Your task to perform on an android device: toggle translation in the chrome app Image 0: 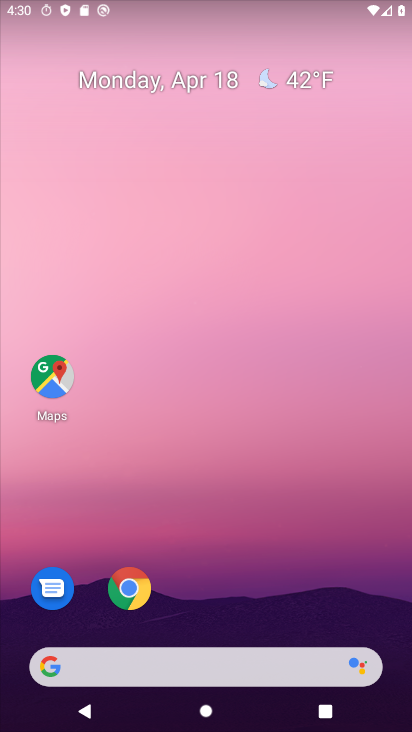
Step 0: click (131, 590)
Your task to perform on an android device: toggle translation in the chrome app Image 1: 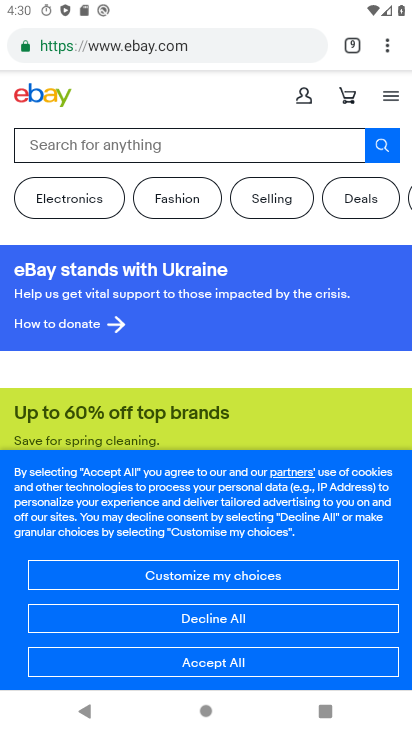
Step 1: click (391, 50)
Your task to perform on an android device: toggle translation in the chrome app Image 2: 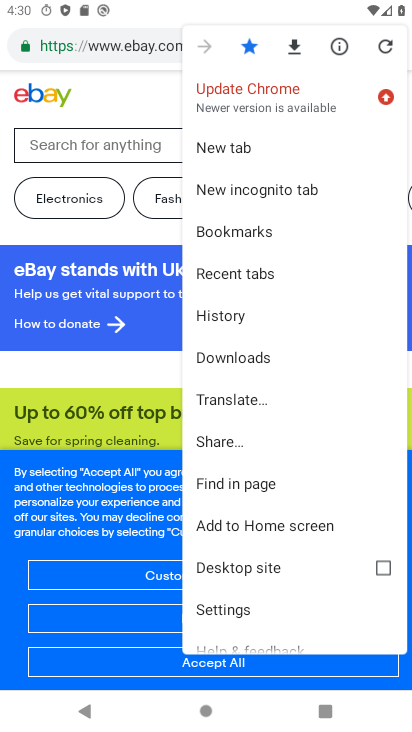
Step 2: click (221, 614)
Your task to perform on an android device: toggle translation in the chrome app Image 3: 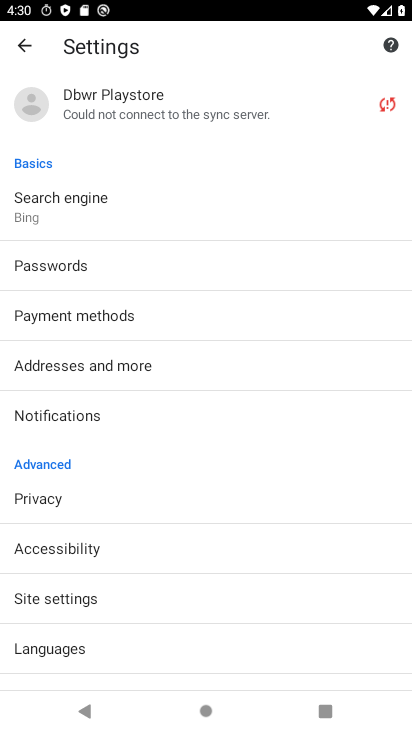
Step 3: drag from (221, 614) to (234, 231)
Your task to perform on an android device: toggle translation in the chrome app Image 4: 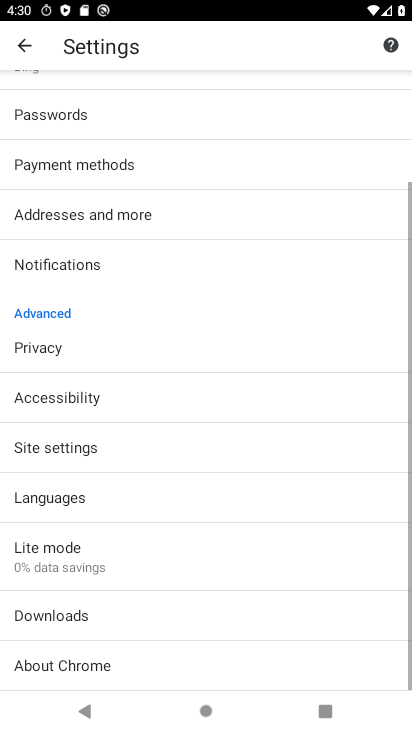
Step 4: click (69, 508)
Your task to perform on an android device: toggle translation in the chrome app Image 5: 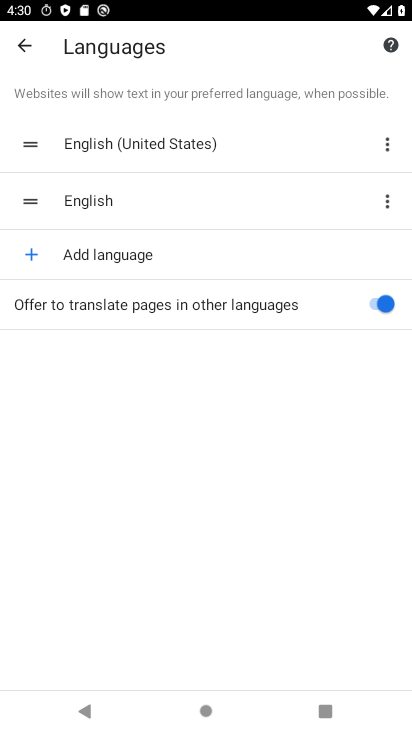
Step 5: click (377, 311)
Your task to perform on an android device: toggle translation in the chrome app Image 6: 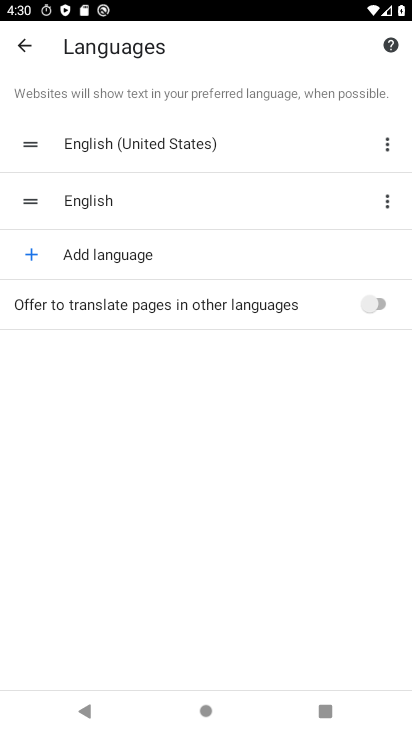
Step 6: task complete